Your task to perform on an android device: Clear all items from cart on walmart.com. Image 0: 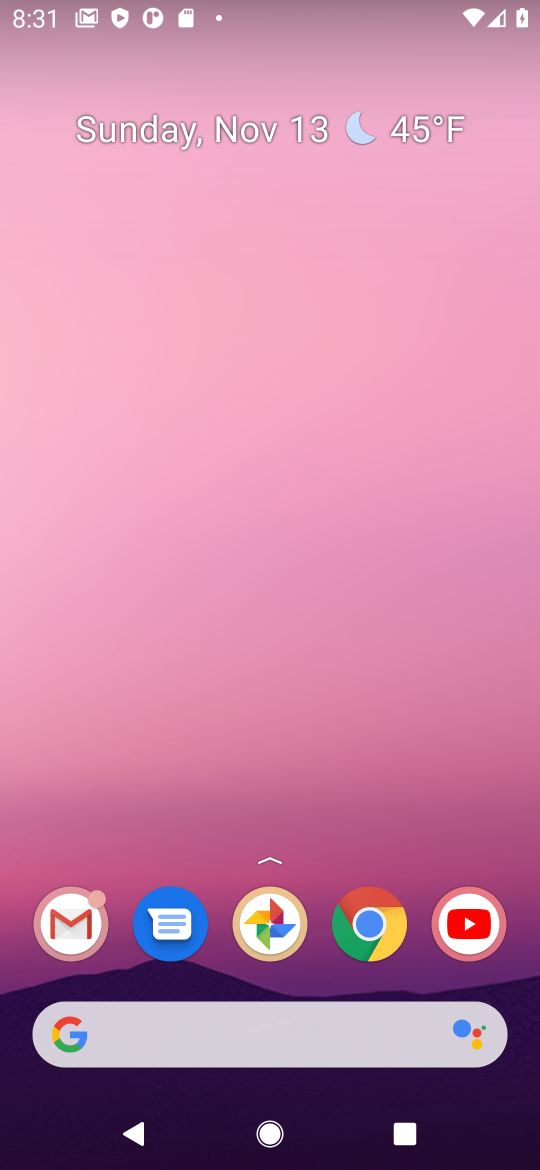
Step 0: click (361, 909)
Your task to perform on an android device: Clear all items from cart on walmart.com. Image 1: 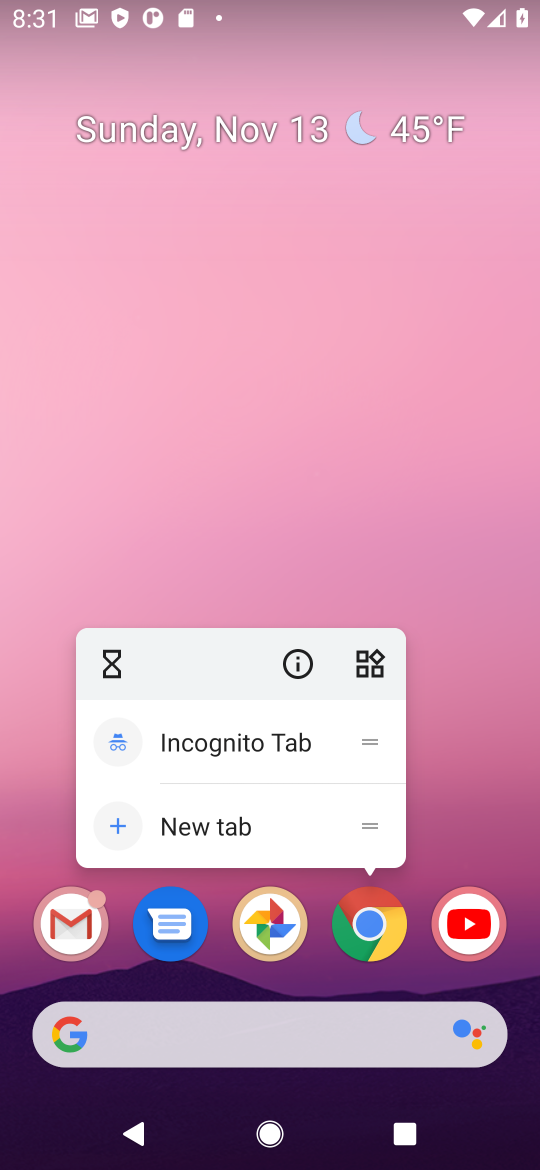
Step 1: click (379, 928)
Your task to perform on an android device: Clear all items from cart on walmart.com. Image 2: 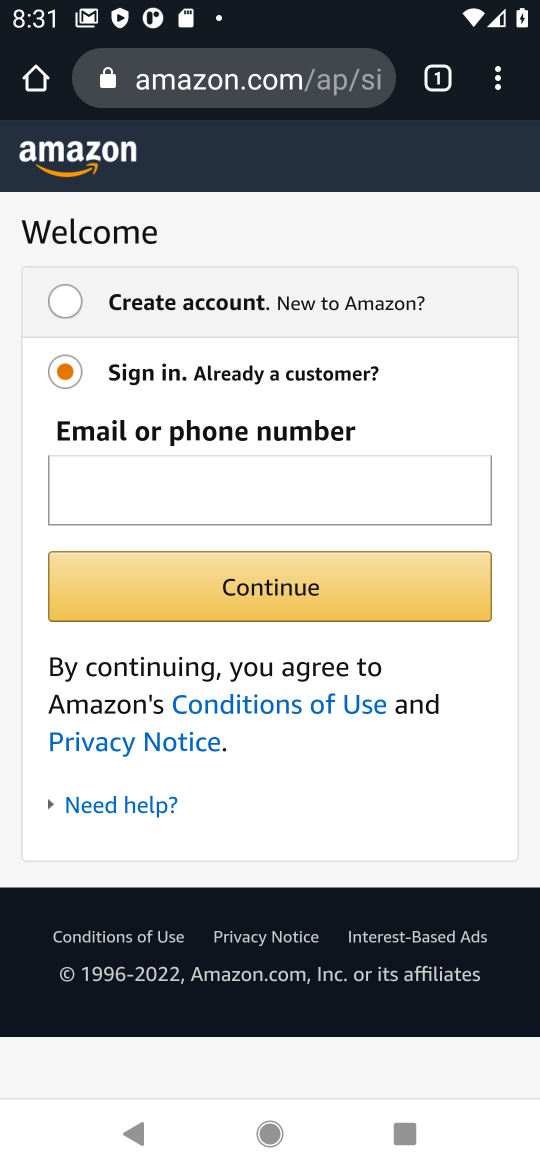
Step 2: click (286, 81)
Your task to perform on an android device: Clear all items from cart on walmart.com. Image 3: 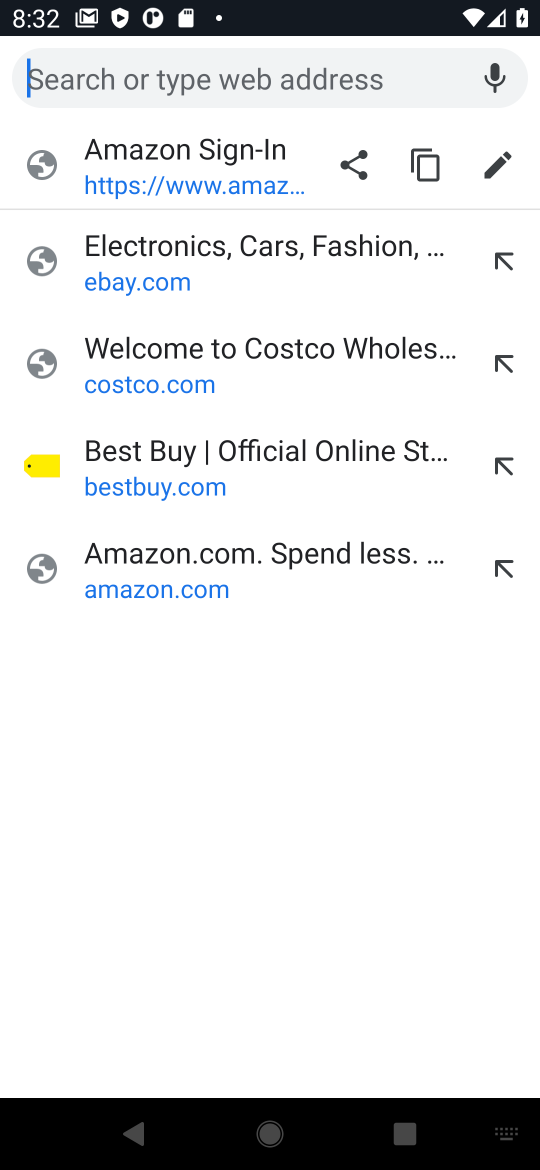
Step 3: type "walmart.com"
Your task to perform on an android device: Clear all items from cart on walmart.com. Image 4: 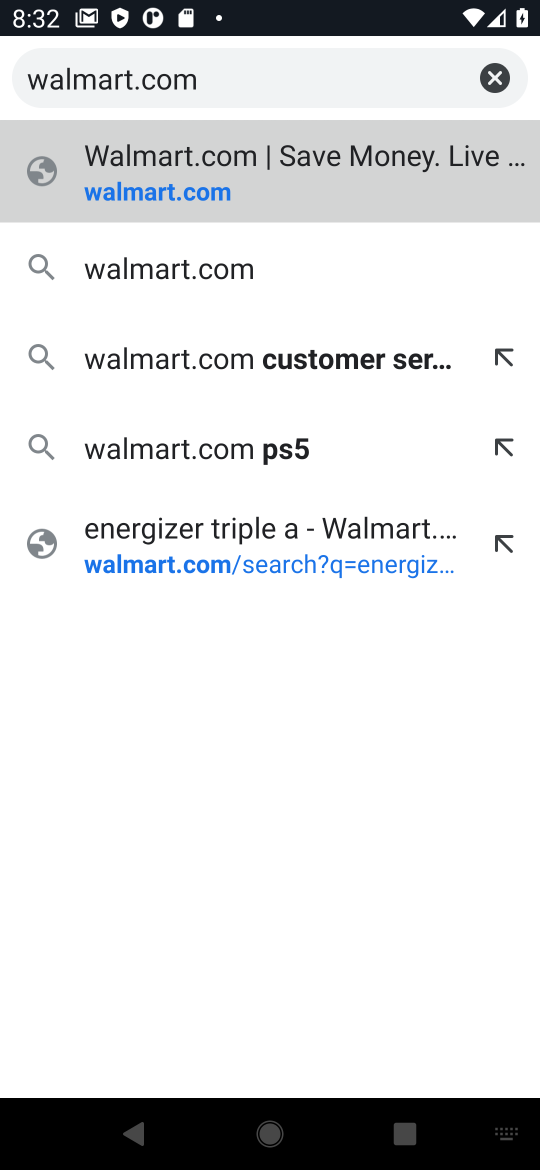
Step 4: press enter
Your task to perform on an android device: Clear all items from cart on walmart.com. Image 5: 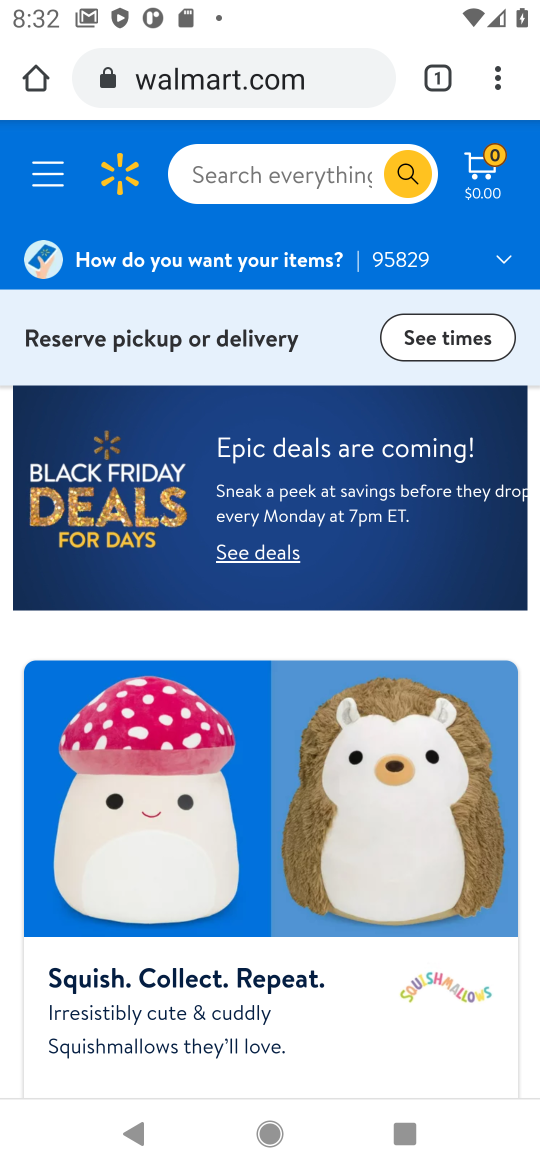
Step 5: click (487, 153)
Your task to perform on an android device: Clear all items from cart on walmart.com. Image 6: 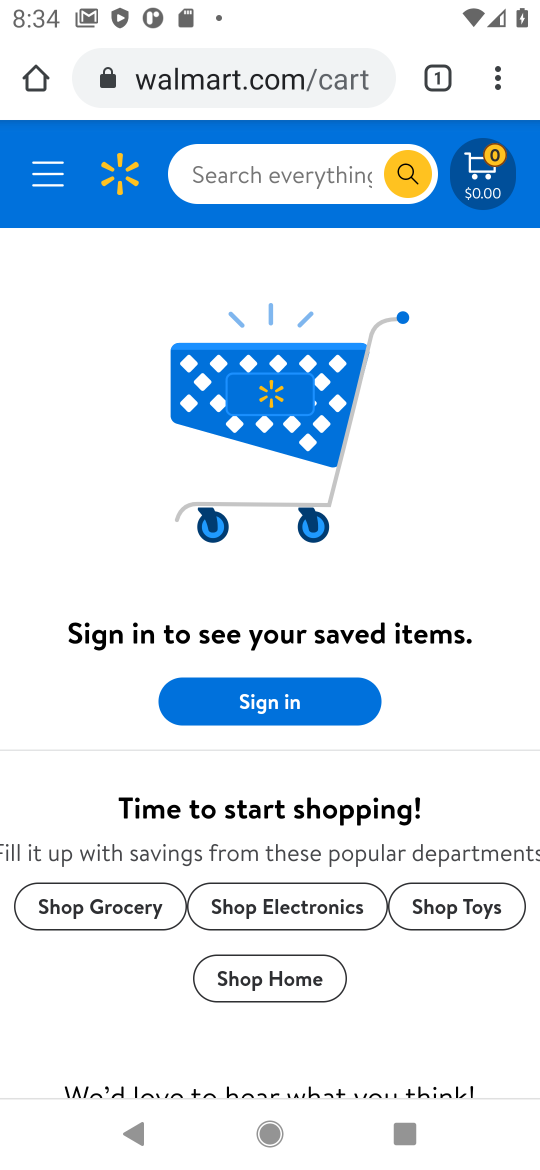
Step 6: task complete